Your task to perform on an android device: toggle sleep mode Image 0: 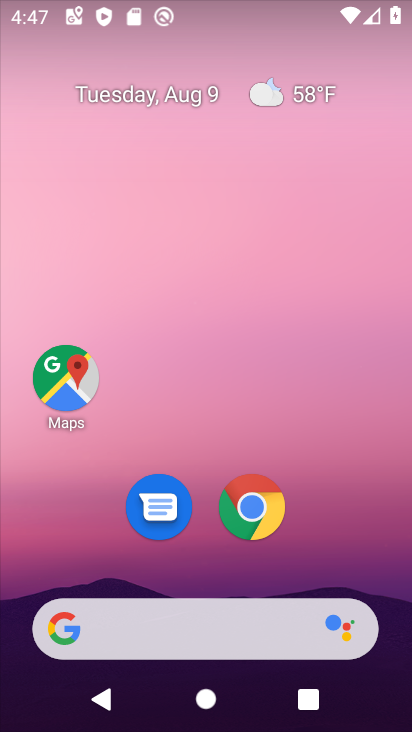
Step 0: drag from (204, 576) to (176, 1)
Your task to perform on an android device: toggle sleep mode Image 1: 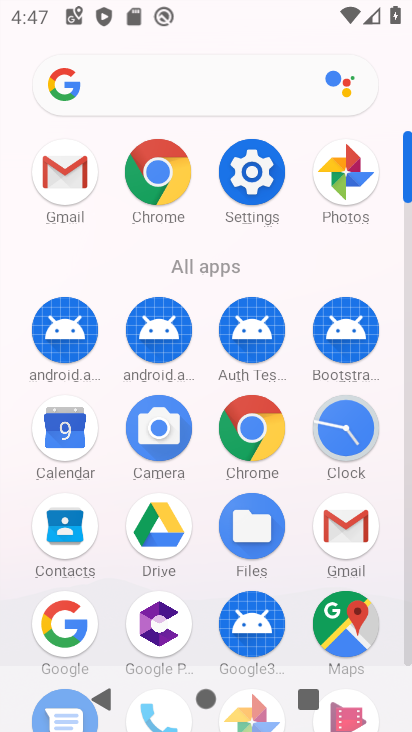
Step 1: click (252, 167)
Your task to perform on an android device: toggle sleep mode Image 2: 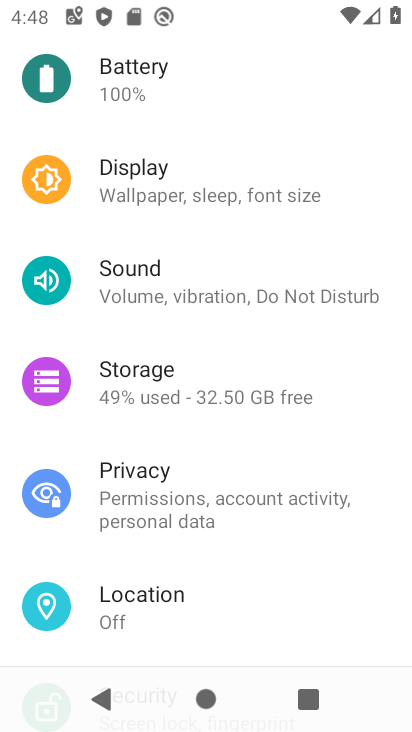
Step 2: click (189, 174)
Your task to perform on an android device: toggle sleep mode Image 3: 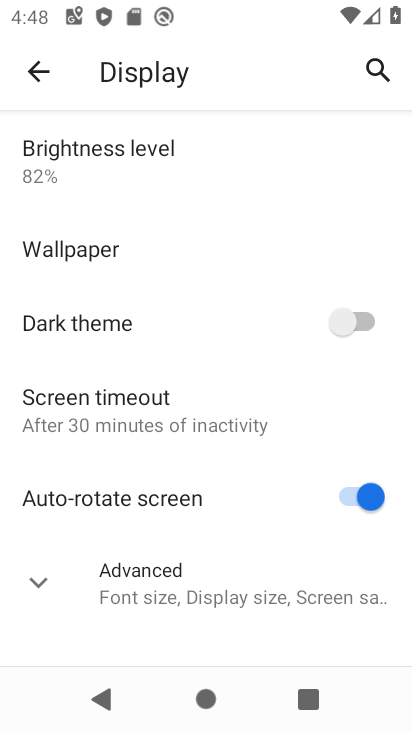
Step 3: click (140, 578)
Your task to perform on an android device: toggle sleep mode Image 4: 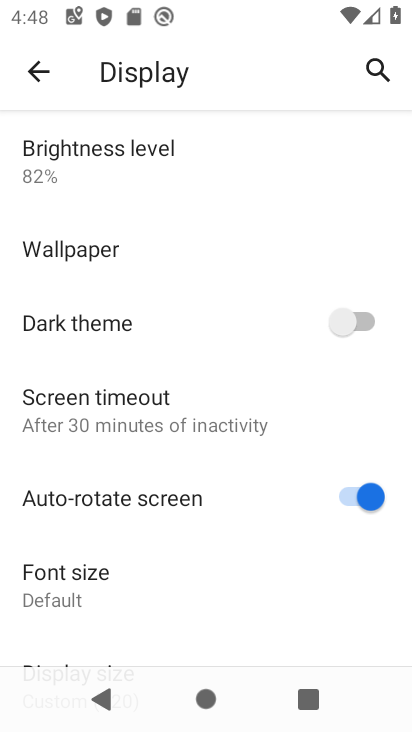
Step 4: task complete